Your task to perform on an android device: Go to Maps Image 0: 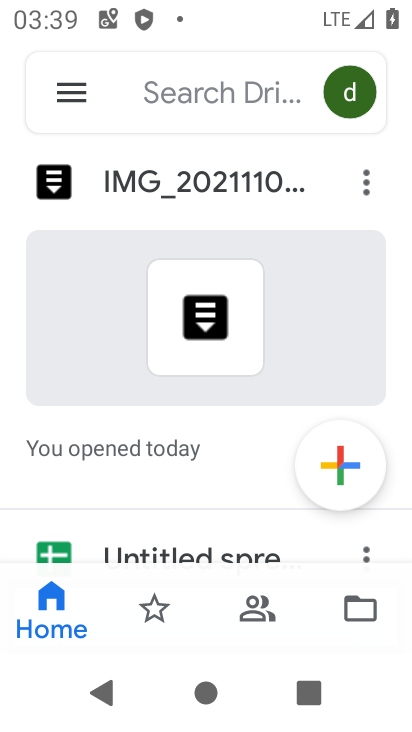
Step 0: press home button
Your task to perform on an android device: Go to Maps Image 1: 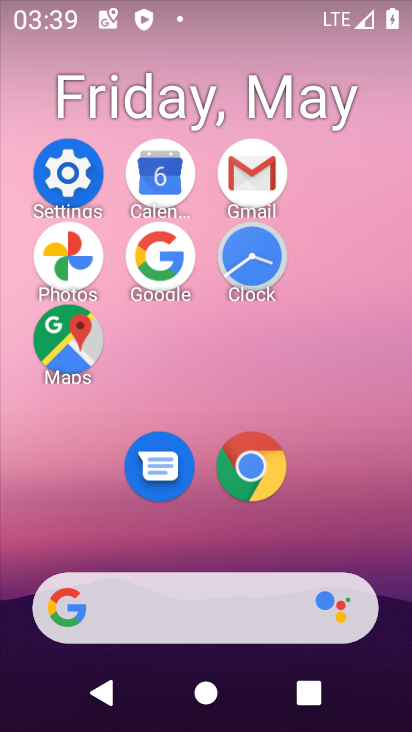
Step 1: click (80, 333)
Your task to perform on an android device: Go to Maps Image 2: 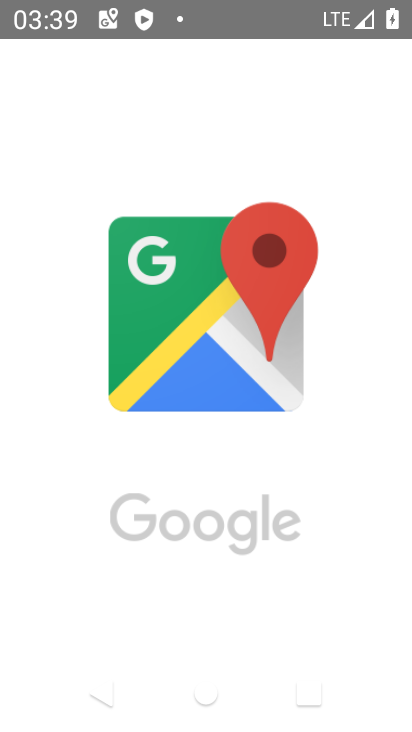
Step 2: task complete